Your task to perform on an android device: open wifi settings Image 0: 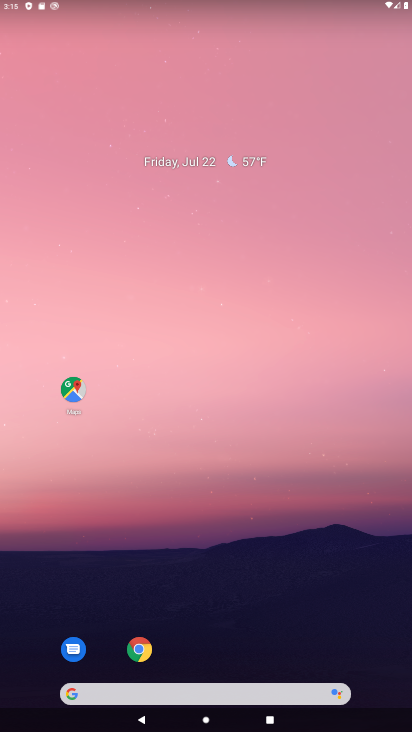
Step 0: drag from (61, 661) to (283, 24)
Your task to perform on an android device: open wifi settings Image 1: 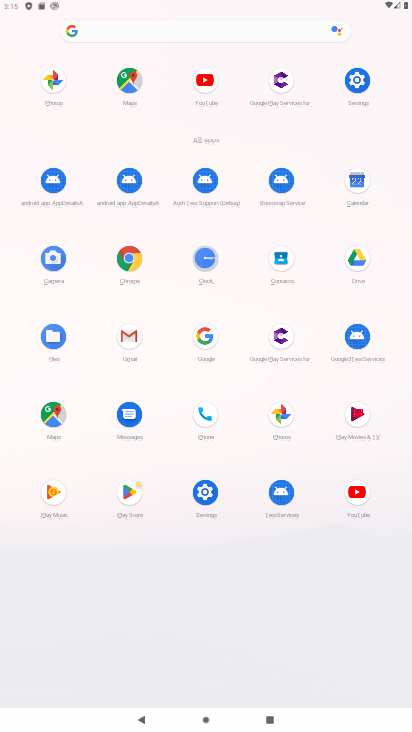
Step 1: click (209, 478)
Your task to perform on an android device: open wifi settings Image 2: 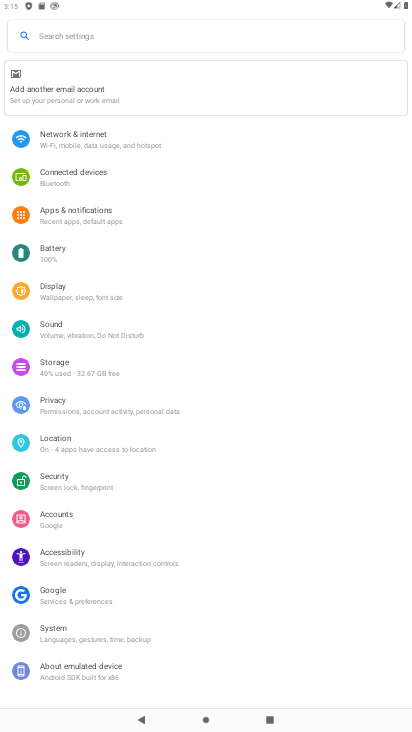
Step 2: click (88, 137)
Your task to perform on an android device: open wifi settings Image 3: 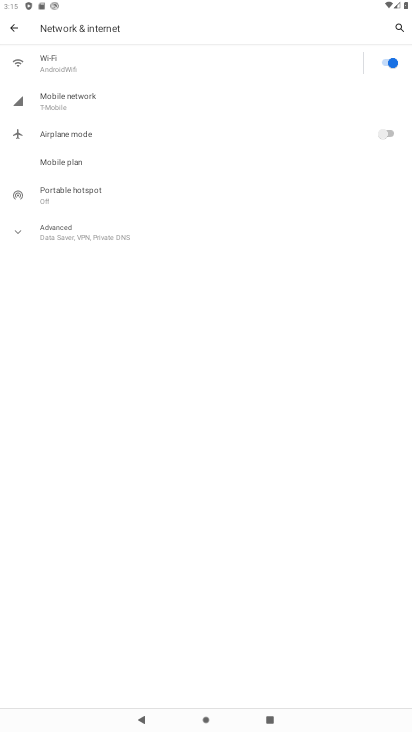
Step 3: task complete